Your task to perform on an android device: What's the weather going to be tomorrow? Image 0: 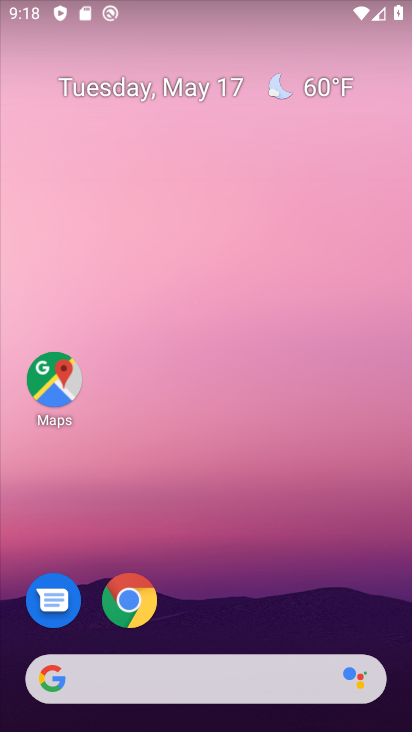
Step 0: drag from (383, 633) to (287, 272)
Your task to perform on an android device: What's the weather going to be tomorrow? Image 1: 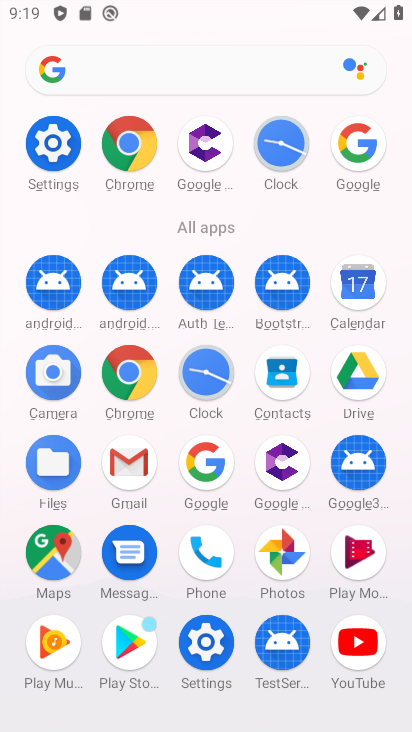
Step 1: click (217, 458)
Your task to perform on an android device: What's the weather going to be tomorrow? Image 2: 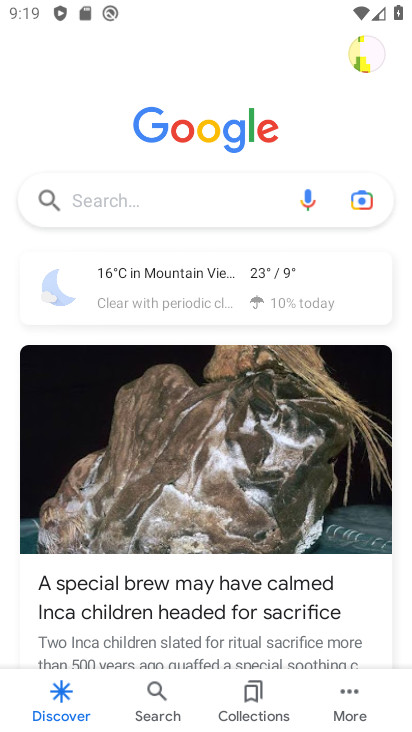
Step 2: click (209, 278)
Your task to perform on an android device: What's the weather going to be tomorrow? Image 3: 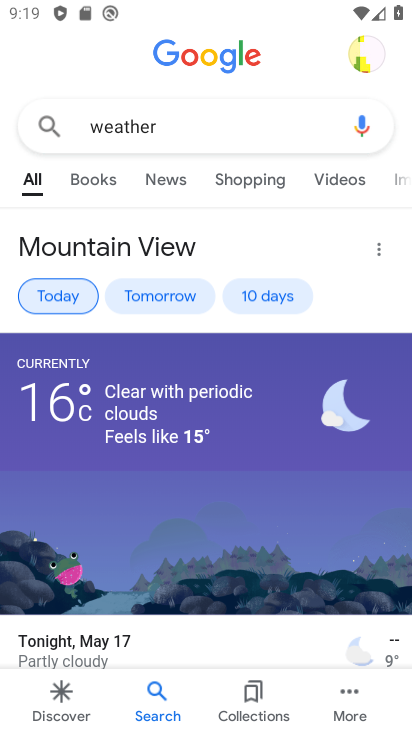
Step 3: click (161, 289)
Your task to perform on an android device: What's the weather going to be tomorrow? Image 4: 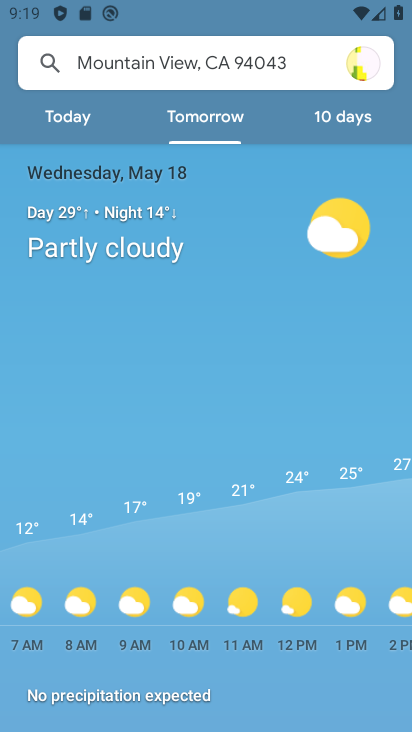
Step 4: task complete